Your task to perform on an android device: What's the weather? Image 0: 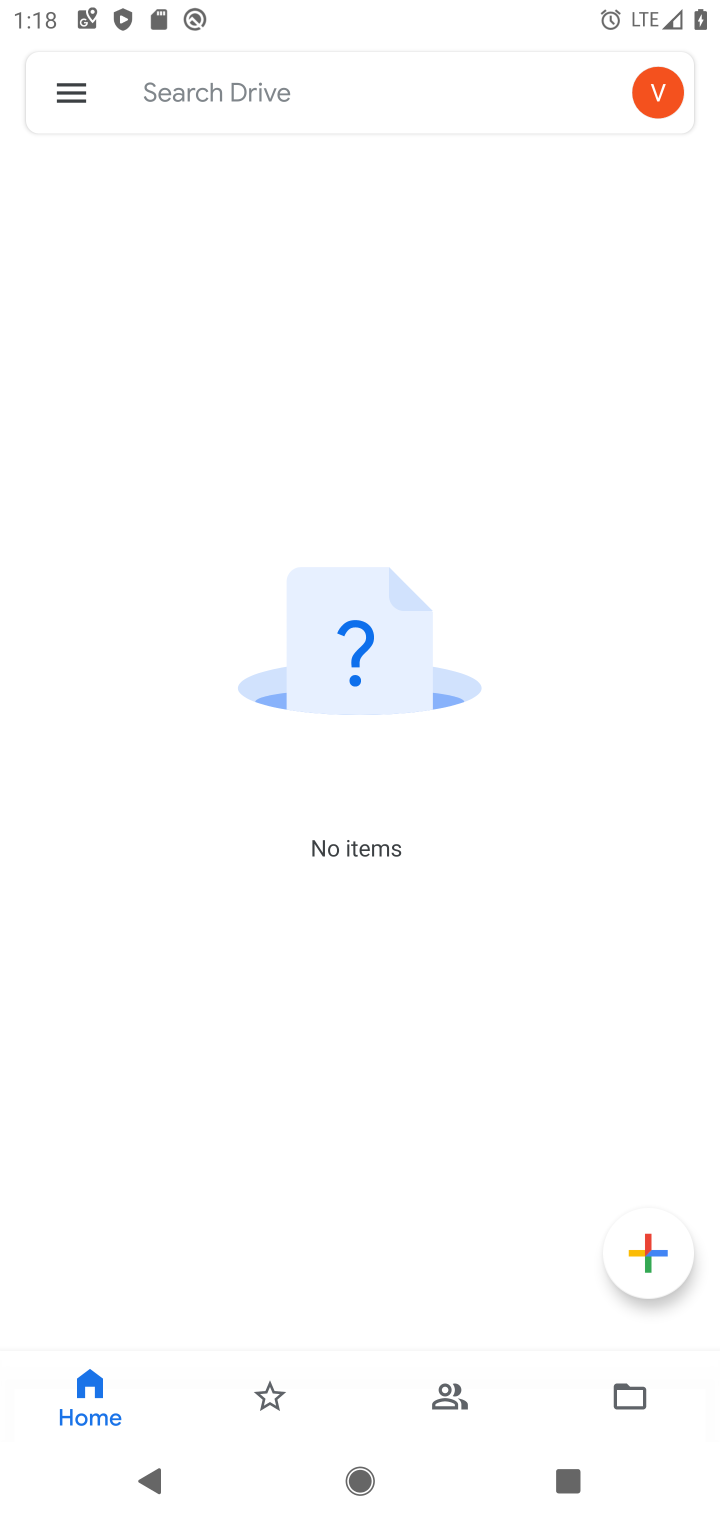
Step 0: press back button
Your task to perform on an android device: What's the weather? Image 1: 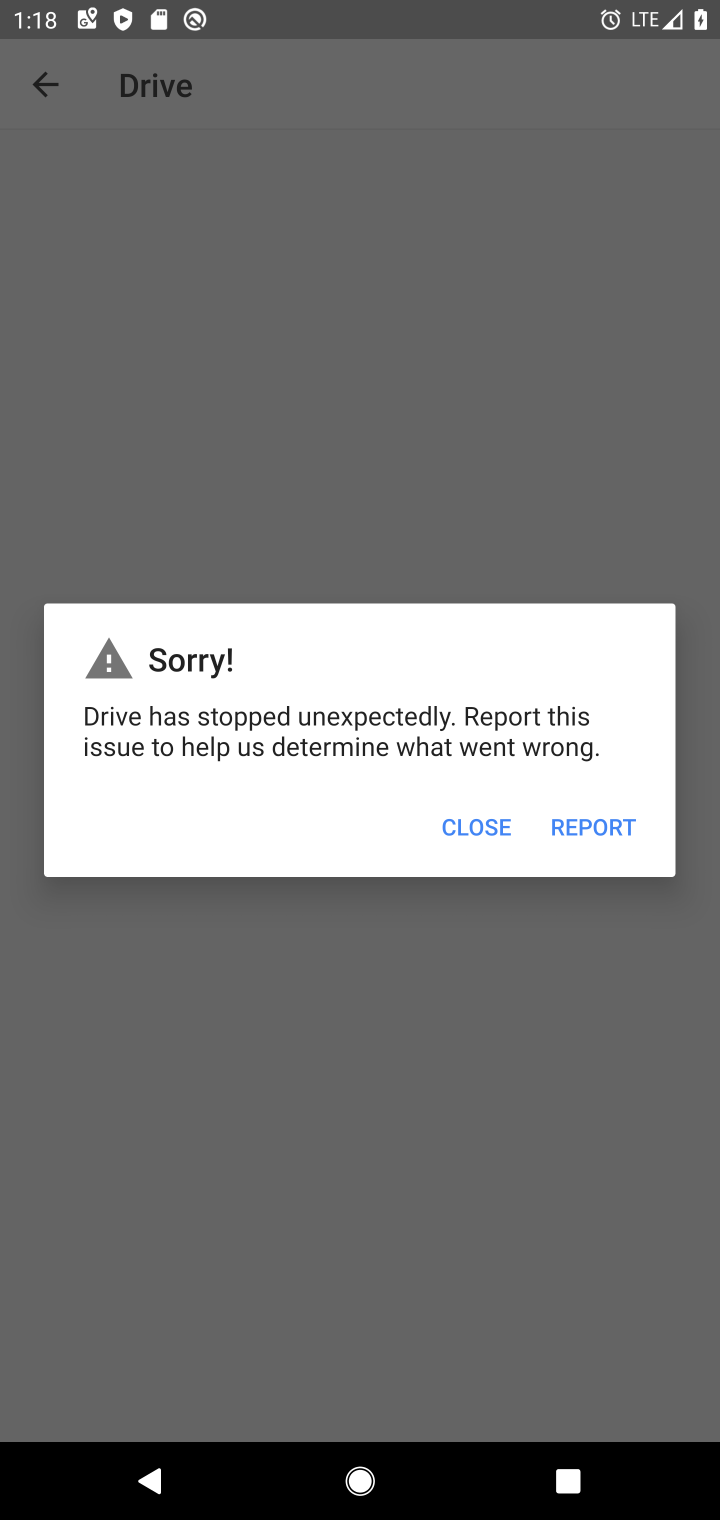
Step 1: press home button
Your task to perform on an android device: What's the weather? Image 2: 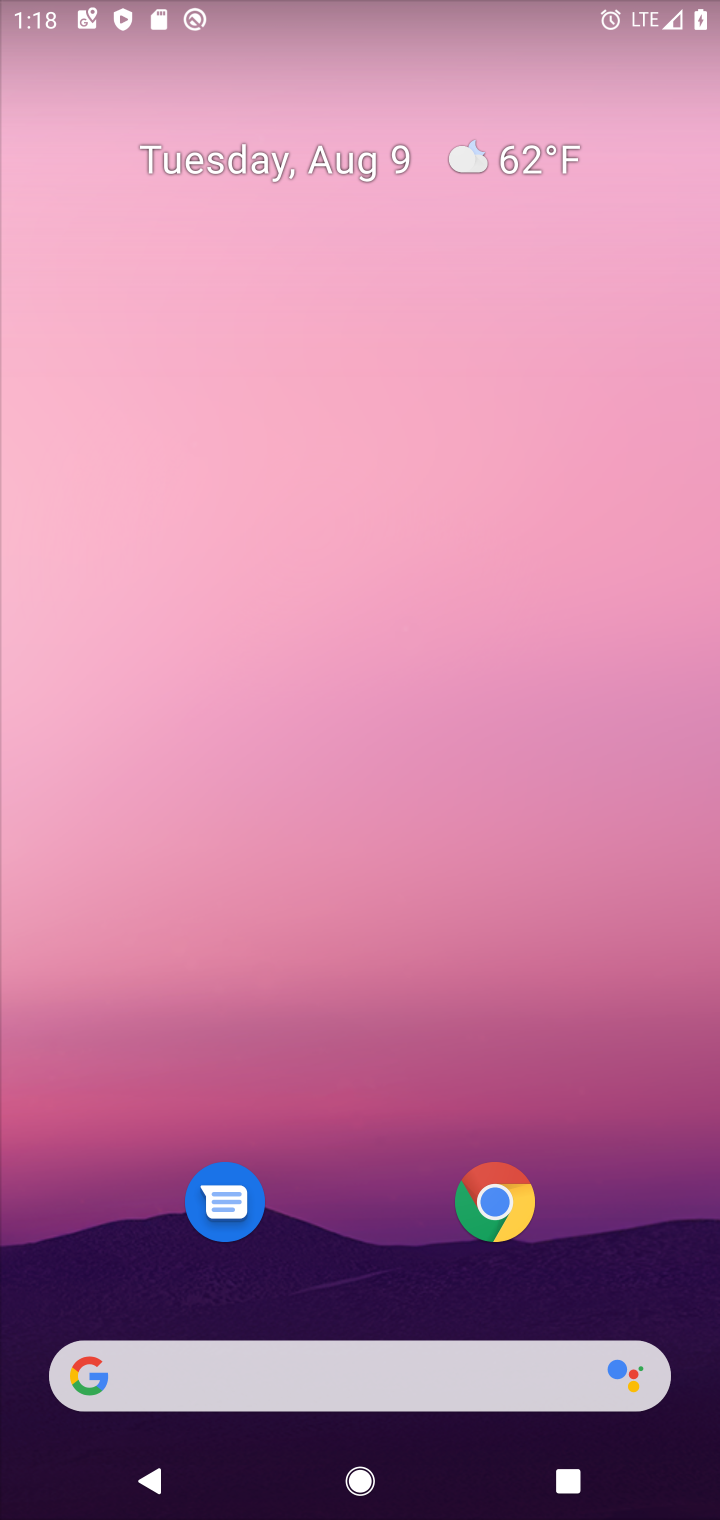
Step 2: click (335, 1360)
Your task to perform on an android device: What's the weather? Image 3: 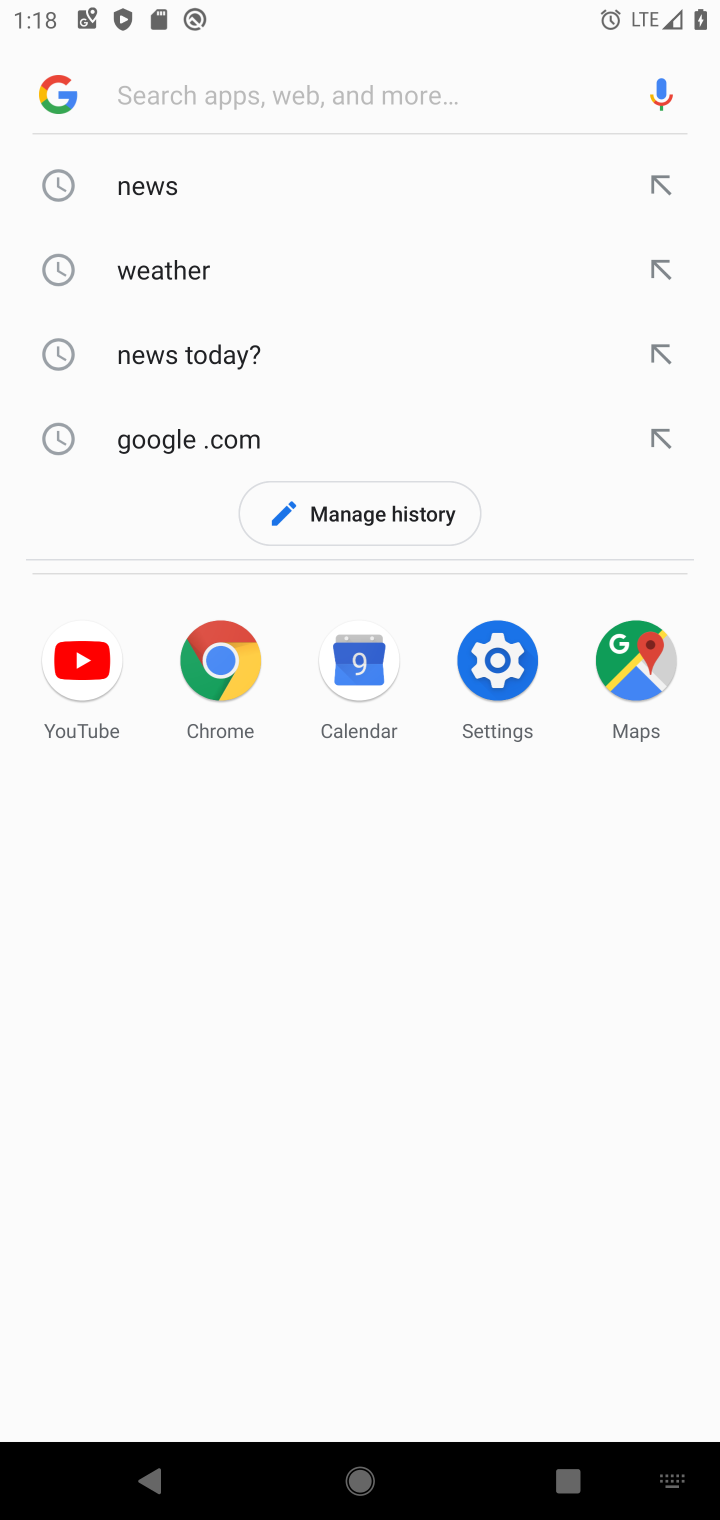
Step 3: click (157, 277)
Your task to perform on an android device: What's the weather? Image 4: 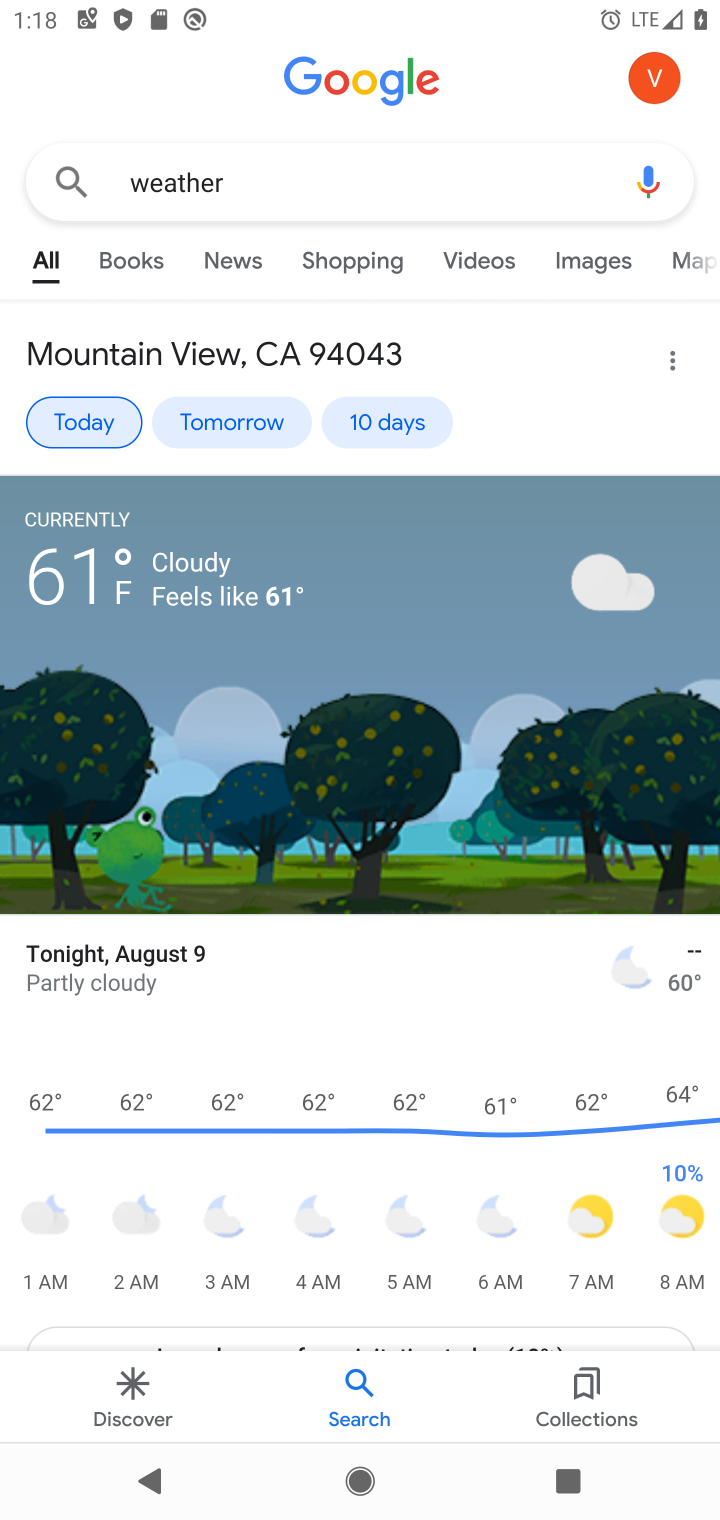
Step 4: task complete